Your task to perform on an android device: Go to accessibility settings Image 0: 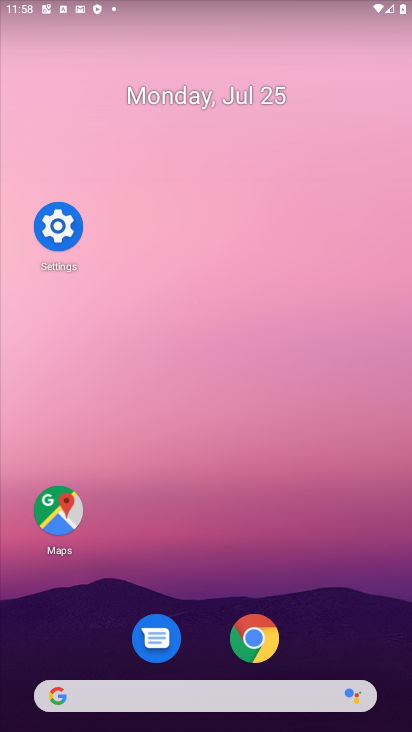
Step 0: click (69, 217)
Your task to perform on an android device: Go to accessibility settings Image 1: 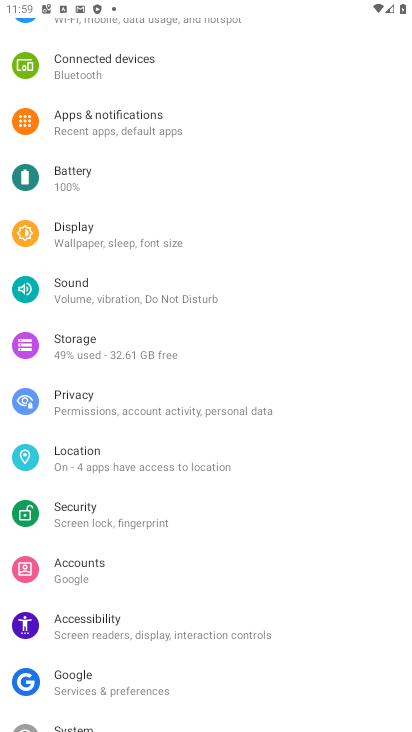
Step 1: task complete